Your task to perform on an android device: change the clock display to show seconds Image 0: 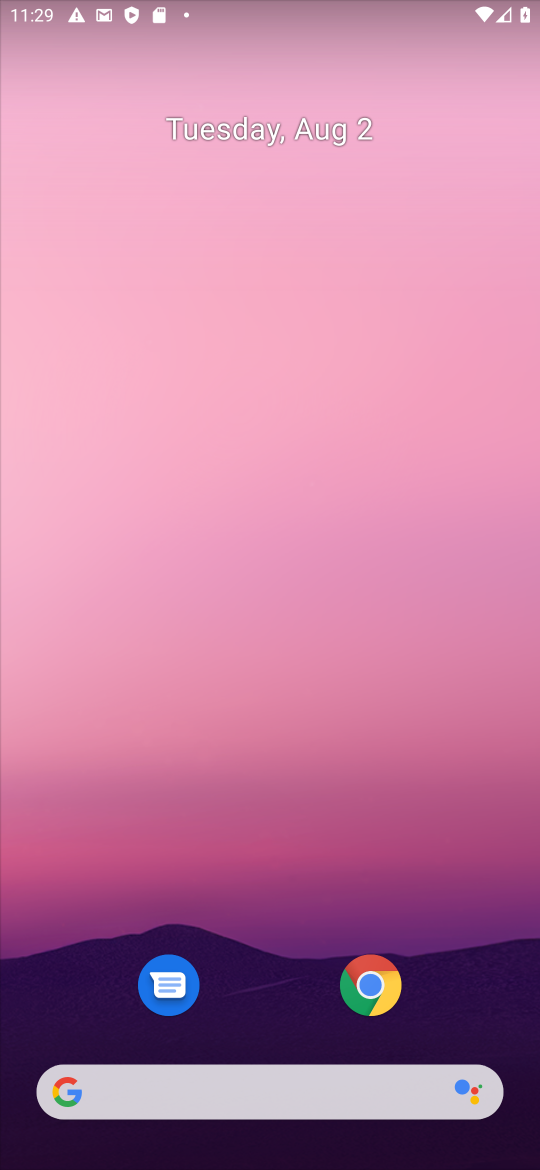
Step 0: drag from (287, 1051) to (286, 63)
Your task to perform on an android device: change the clock display to show seconds Image 1: 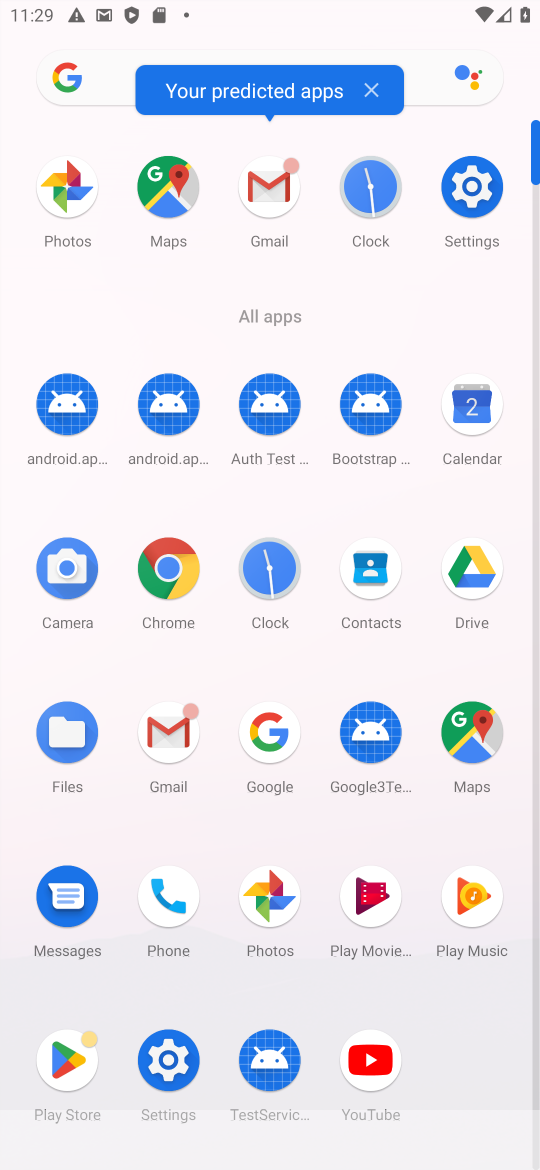
Step 1: click (365, 210)
Your task to perform on an android device: change the clock display to show seconds Image 2: 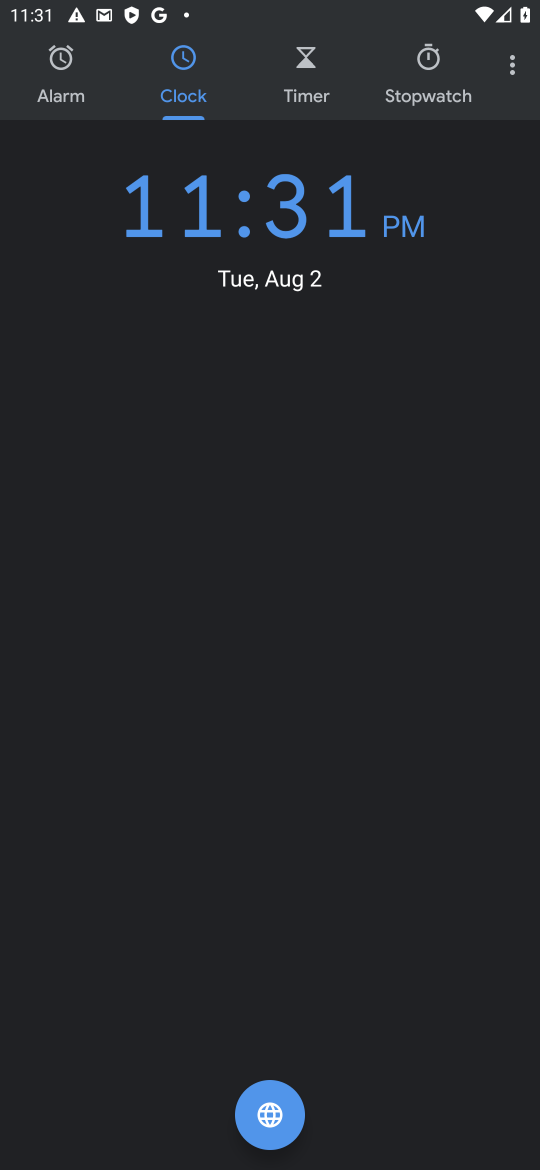
Step 2: task complete